Your task to perform on an android device: turn off smart reply in the gmail app Image 0: 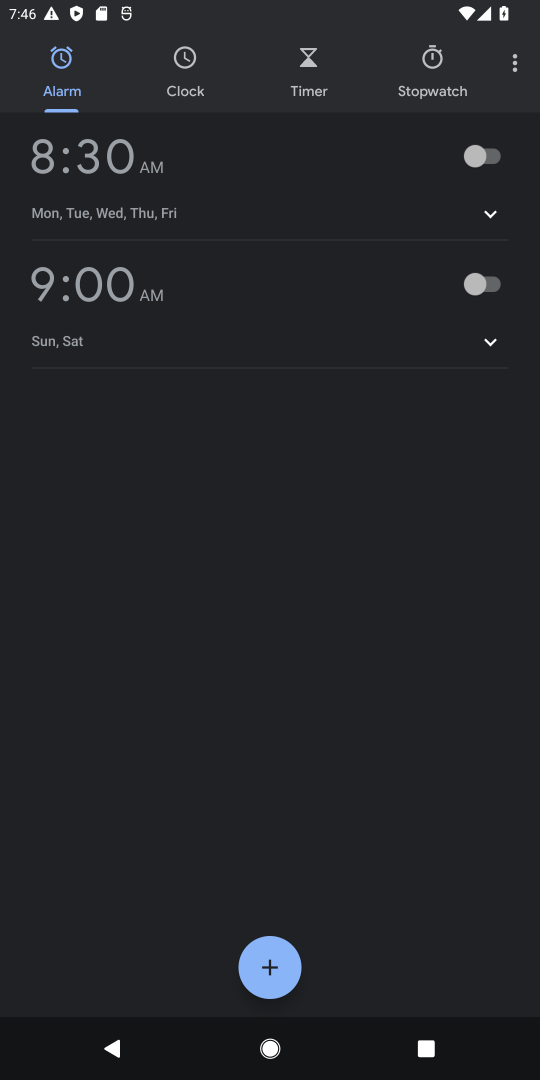
Step 0: press home button
Your task to perform on an android device: turn off smart reply in the gmail app Image 1: 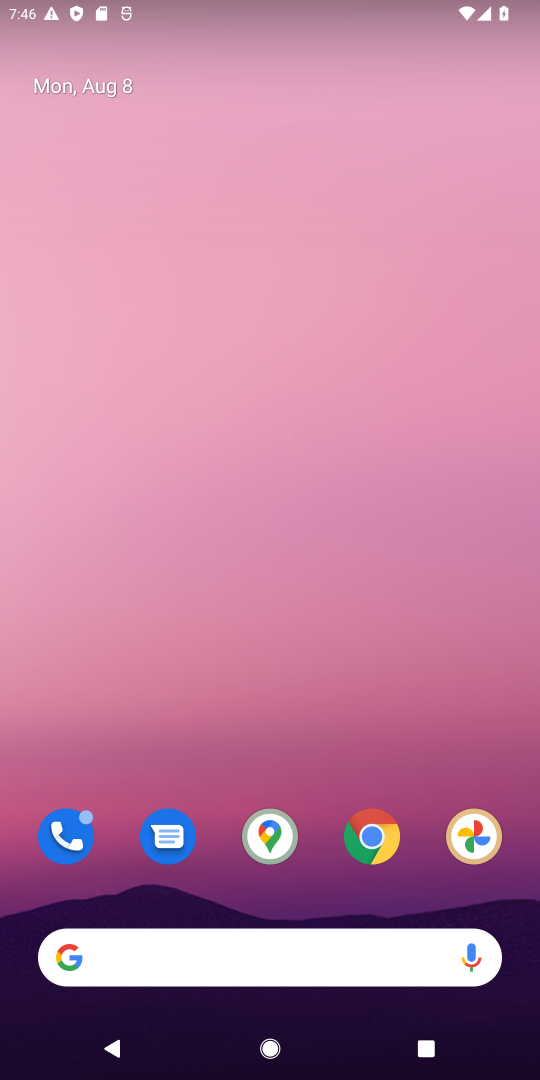
Step 1: drag from (423, 780) to (289, 113)
Your task to perform on an android device: turn off smart reply in the gmail app Image 2: 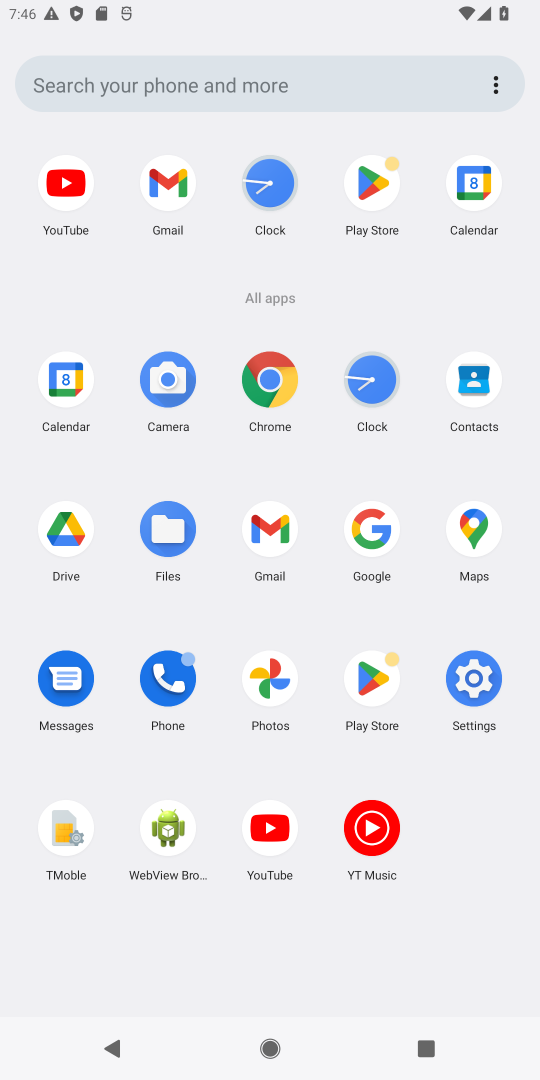
Step 2: click (165, 184)
Your task to perform on an android device: turn off smart reply in the gmail app Image 3: 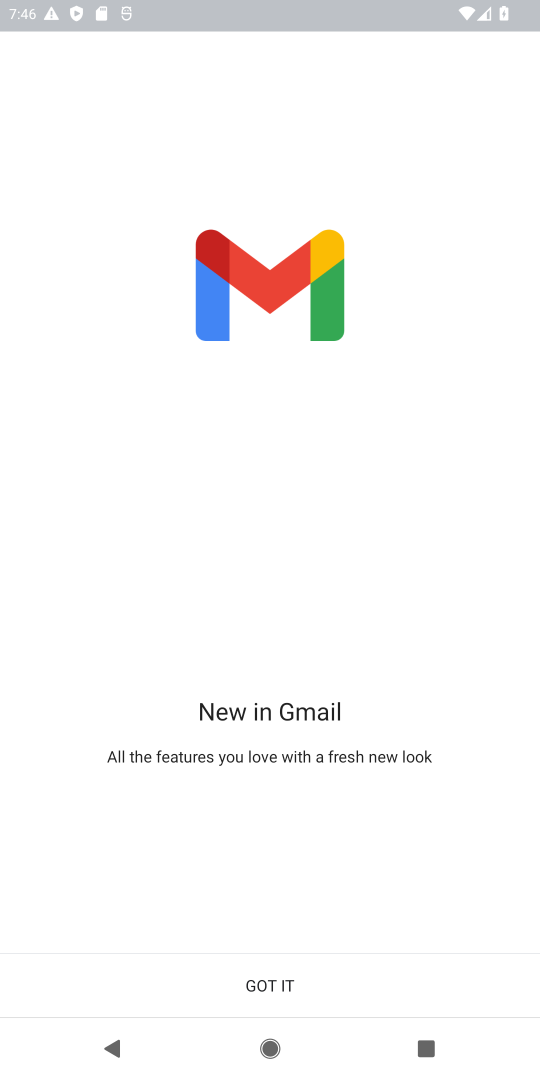
Step 3: click (301, 996)
Your task to perform on an android device: turn off smart reply in the gmail app Image 4: 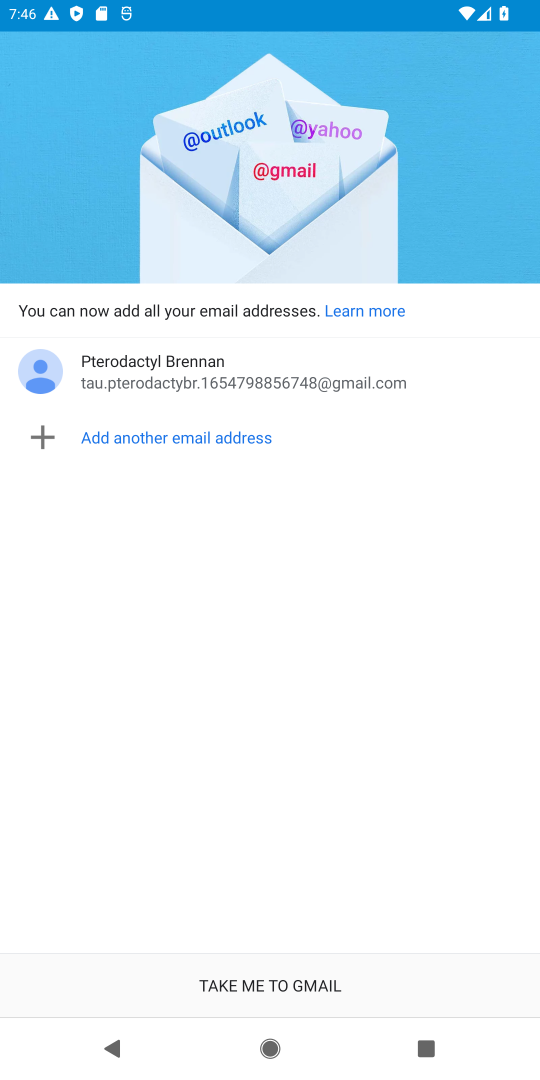
Step 4: click (299, 994)
Your task to perform on an android device: turn off smart reply in the gmail app Image 5: 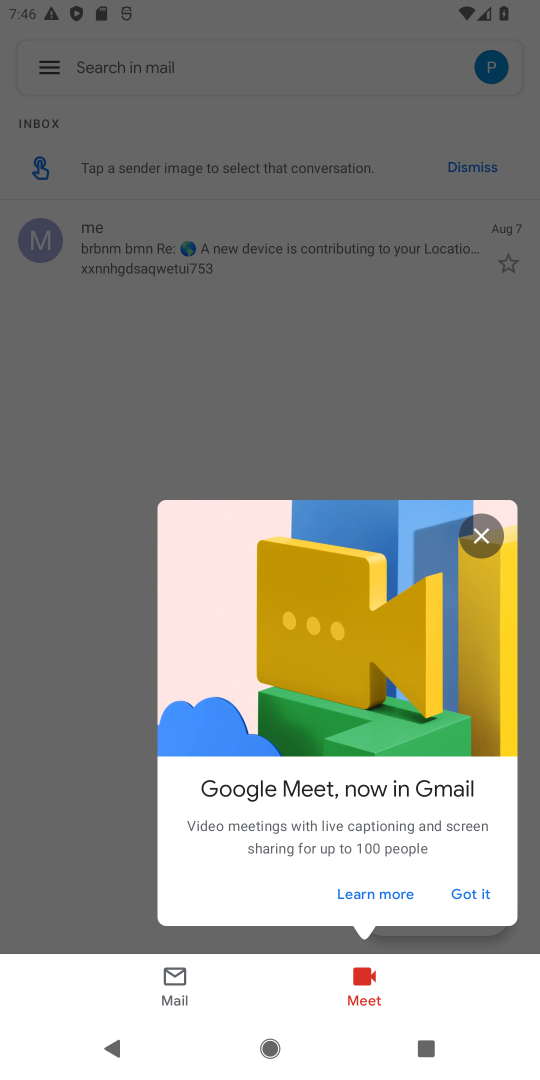
Step 5: click (486, 543)
Your task to perform on an android device: turn off smart reply in the gmail app Image 6: 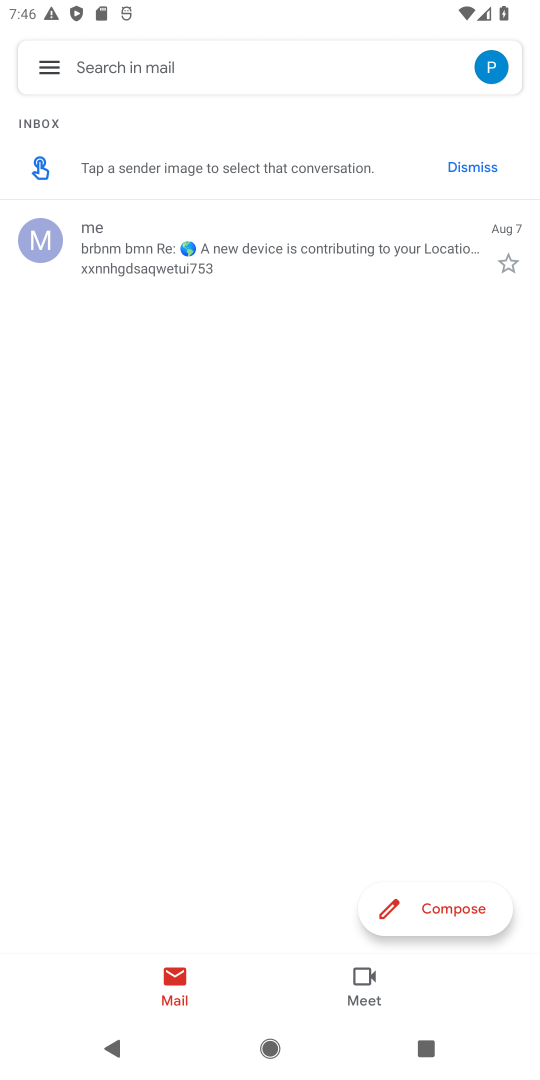
Step 6: click (49, 82)
Your task to perform on an android device: turn off smart reply in the gmail app Image 7: 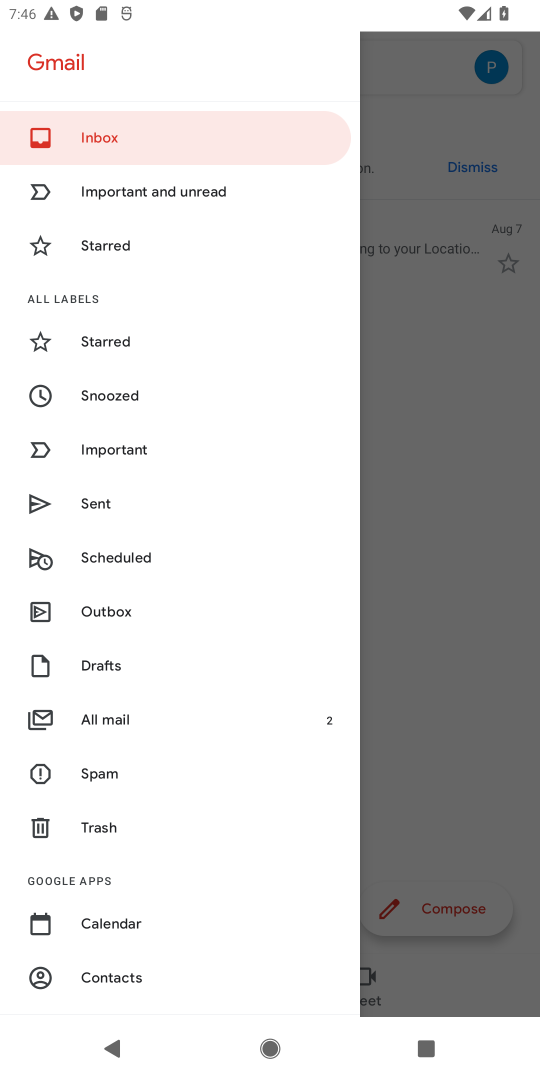
Step 7: drag from (241, 957) to (94, 372)
Your task to perform on an android device: turn off smart reply in the gmail app Image 8: 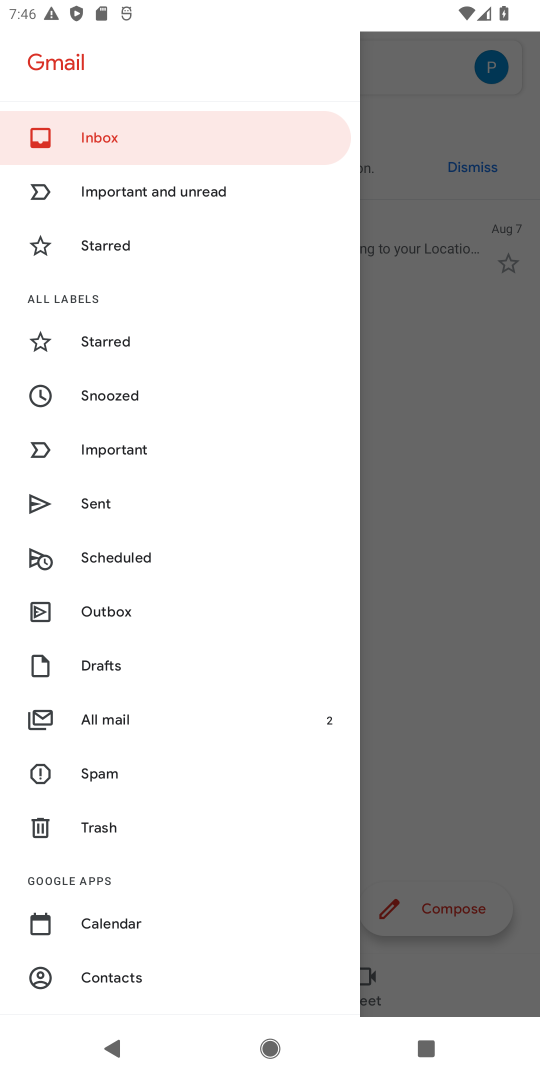
Step 8: drag from (193, 970) to (128, 364)
Your task to perform on an android device: turn off smart reply in the gmail app Image 9: 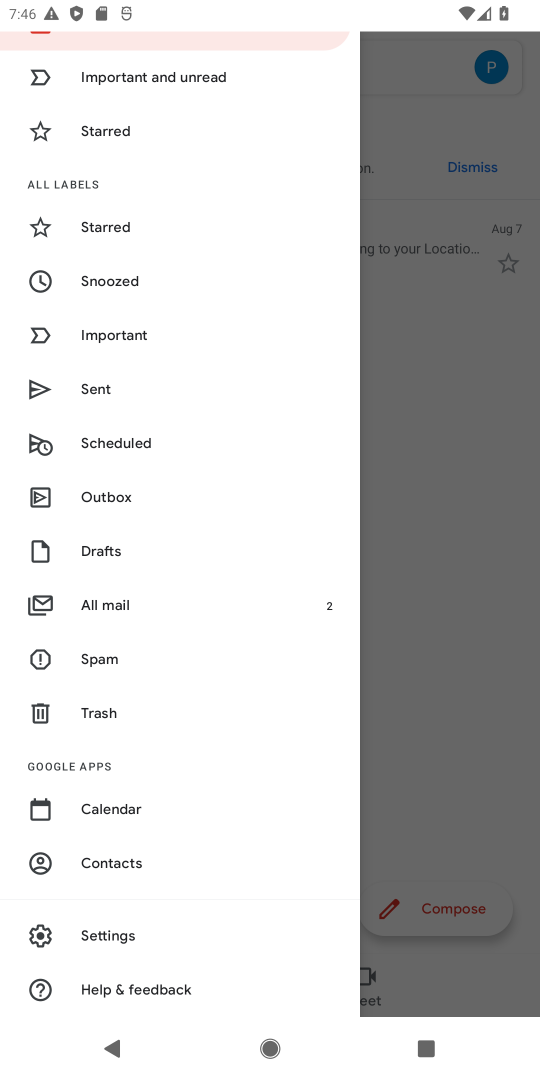
Step 9: click (188, 936)
Your task to perform on an android device: turn off smart reply in the gmail app Image 10: 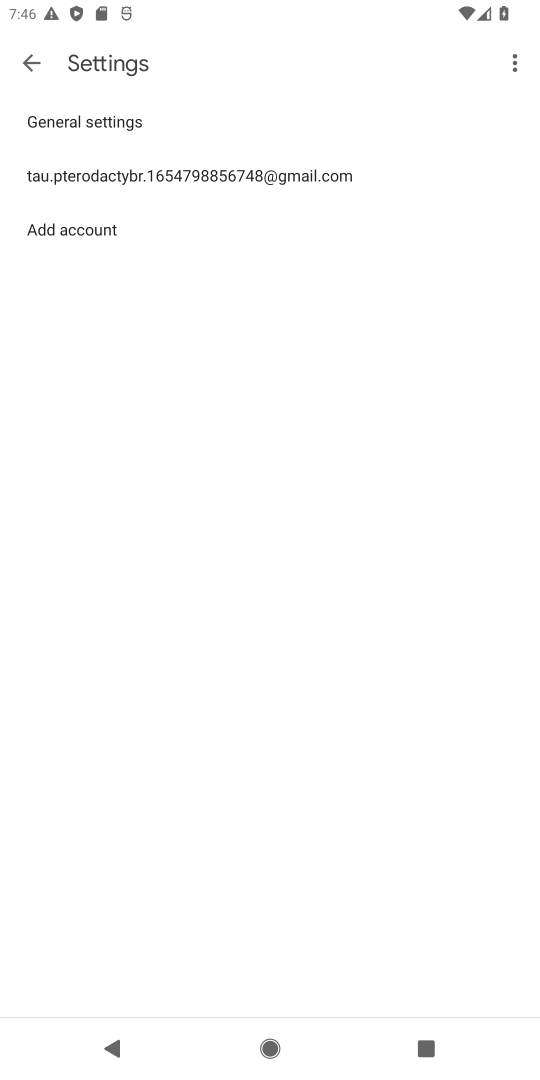
Step 10: click (277, 183)
Your task to perform on an android device: turn off smart reply in the gmail app Image 11: 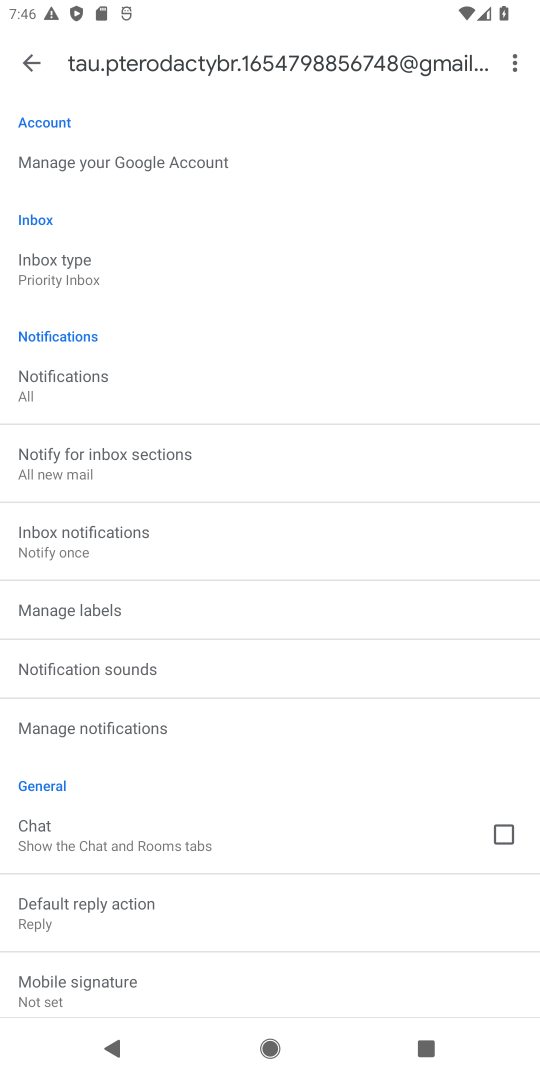
Step 11: drag from (269, 958) to (316, 287)
Your task to perform on an android device: turn off smart reply in the gmail app Image 12: 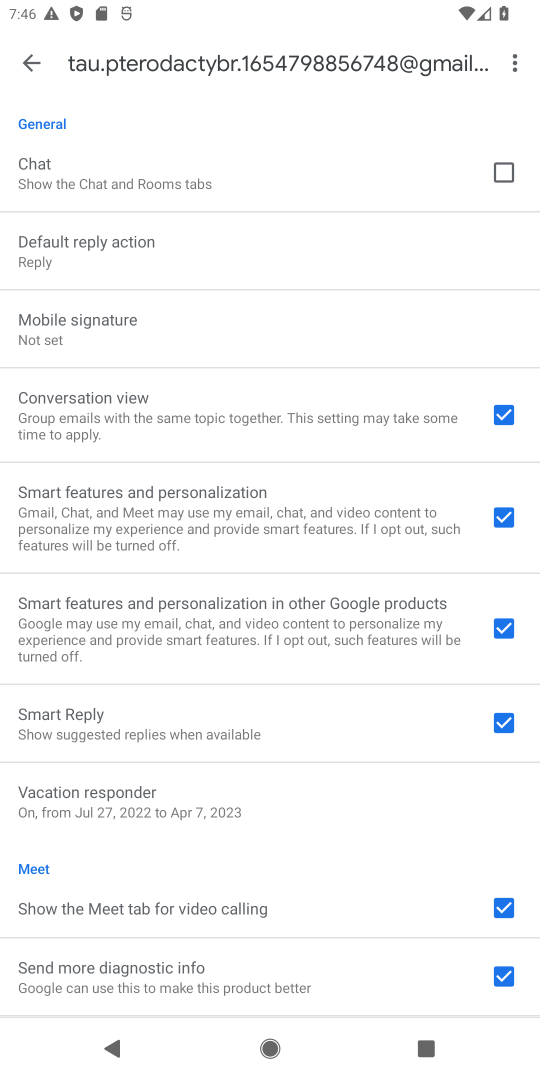
Step 12: click (498, 734)
Your task to perform on an android device: turn off smart reply in the gmail app Image 13: 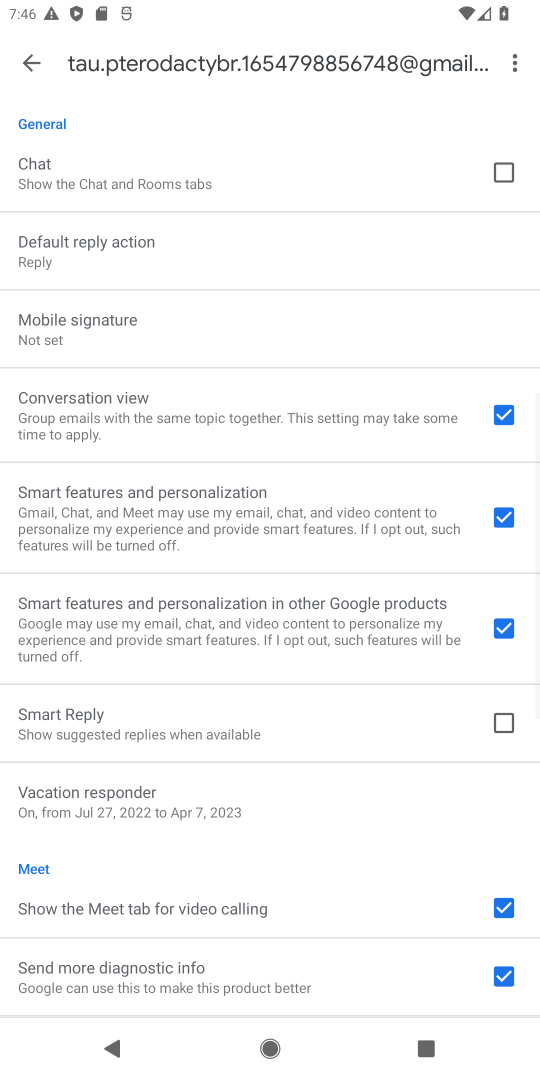
Step 13: task complete